Your task to perform on an android device: Open Android settings Image 0: 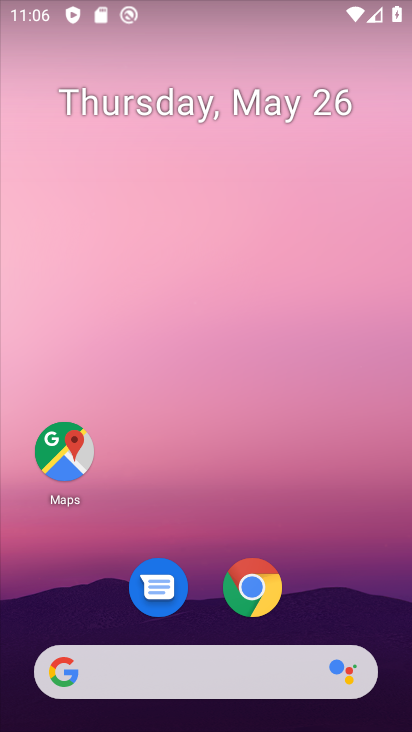
Step 0: press home button
Your task to perform on an android device: Open Android settings Image 1: 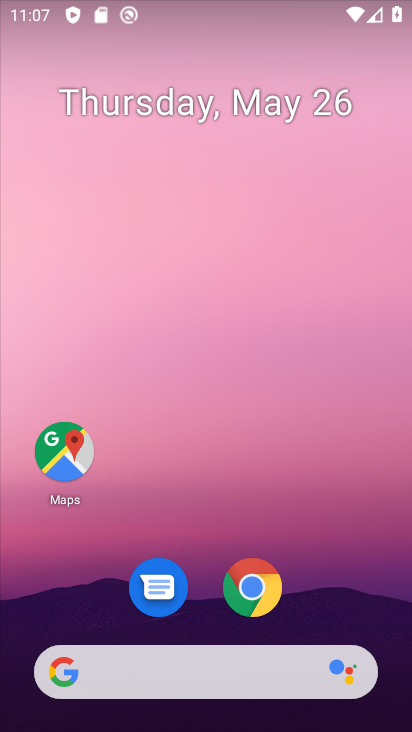
Step 1: drag from (257, 709) to (326, 195)
Your task to perform on an android device: Open Android settings Image 2: 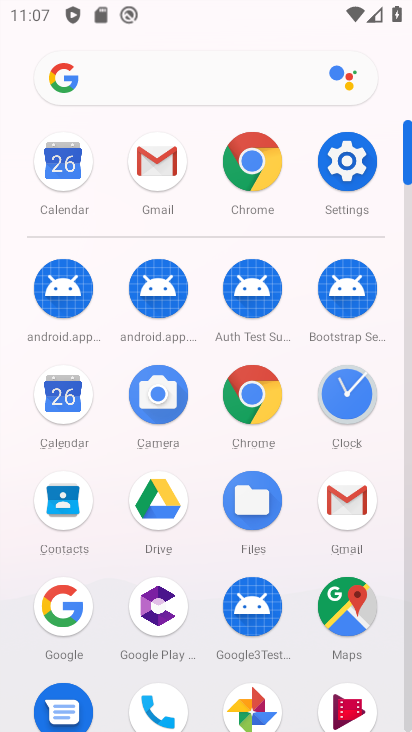
Step 2: click (339, 145)
Your task to perform on an android device: Open Android settings Image 3: 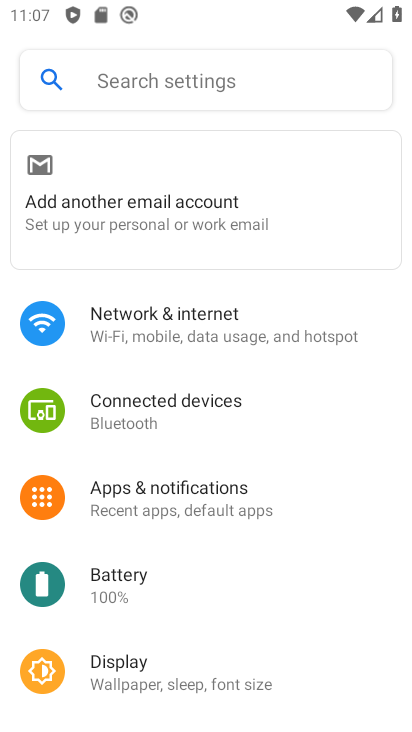
Step 3: click (122, 71)
Your task to perform on an android device: Open Android settings Image 4: 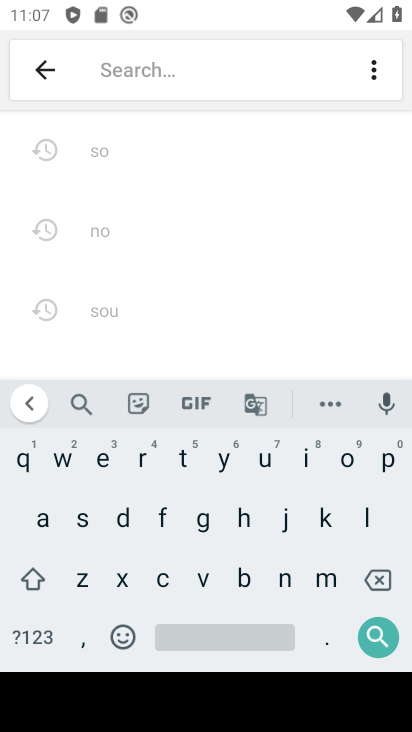
Step 4: click (32, 523)
Your task to perform on an android device: Open Android settings Image 5: 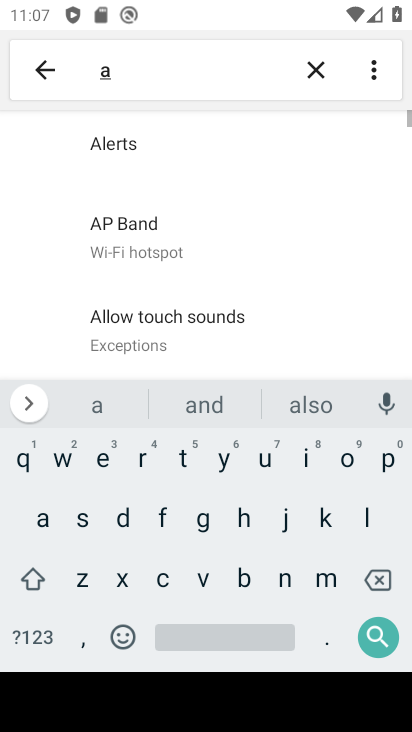
Step 5: click (281, 577)
Your task to perform on an android device: Open Android settings Image 6: 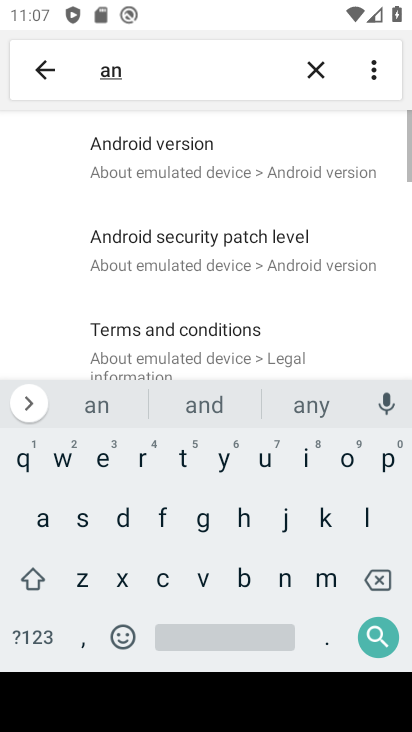
Step 6: click (183, 157)
Your task to perform on an android device: Open Android settings Image 7: 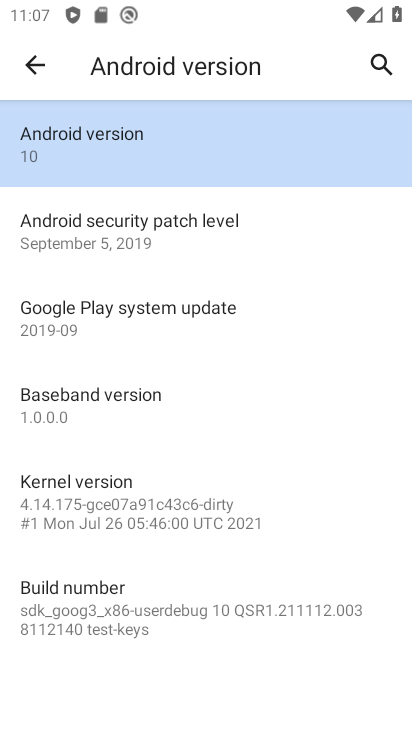
Step 7: click (129, 151)
Your task to perform on an android device: Open Android settings Image 8: 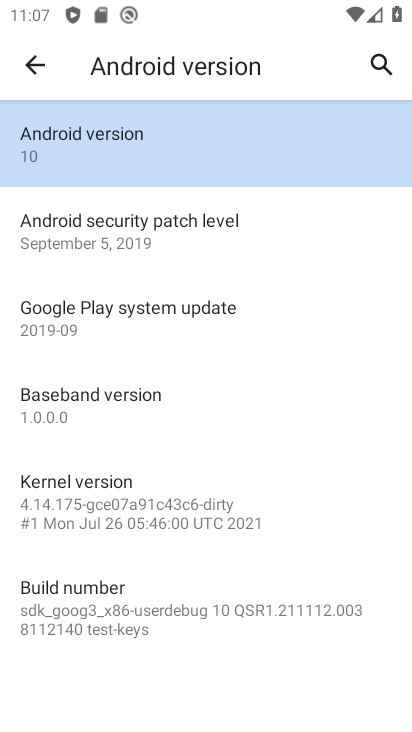
Step 8: task complete